Your task to perform on an android device: Search for the best vacuum on Walmart Image 0: 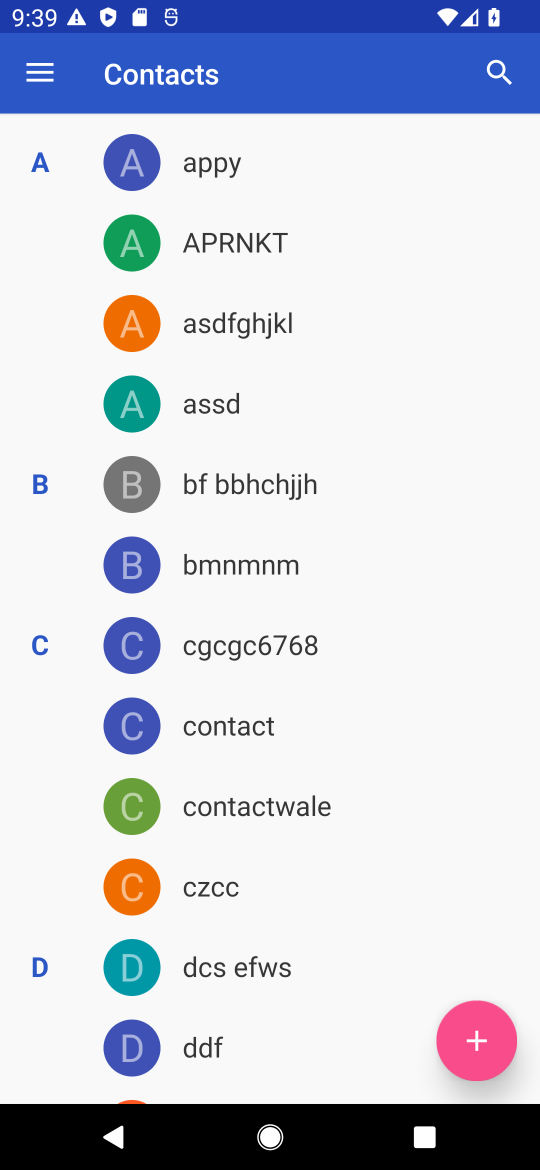
Step 0: press home button
Your task to perform on an android device: Search for the best vacuum on Walmart Image 1: 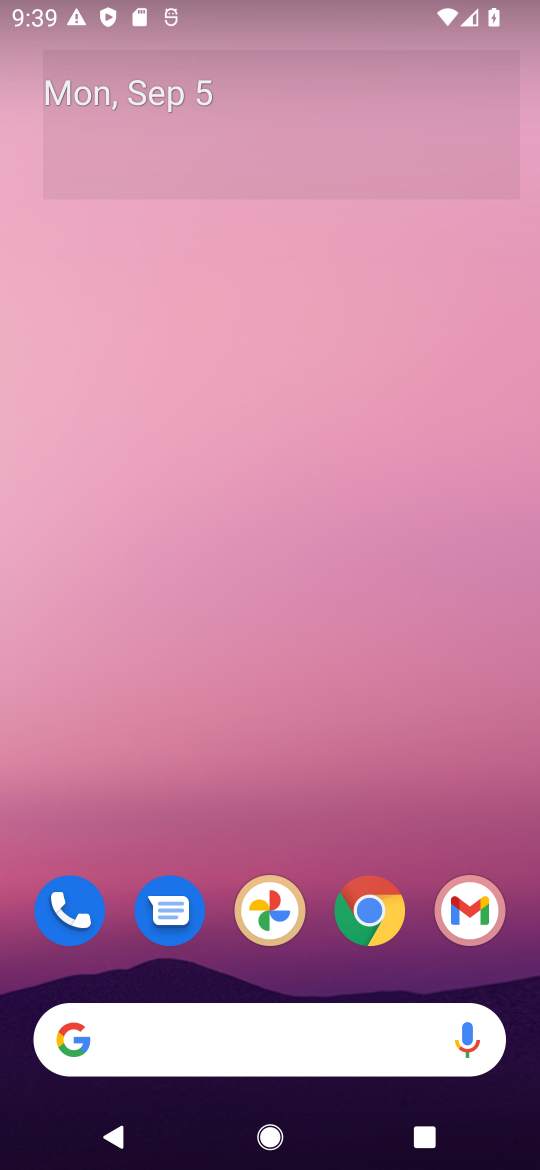
Step 1: click (354, 956)
Your task to perform on an android device: Search for the best vacuum on Walmart Image 2: 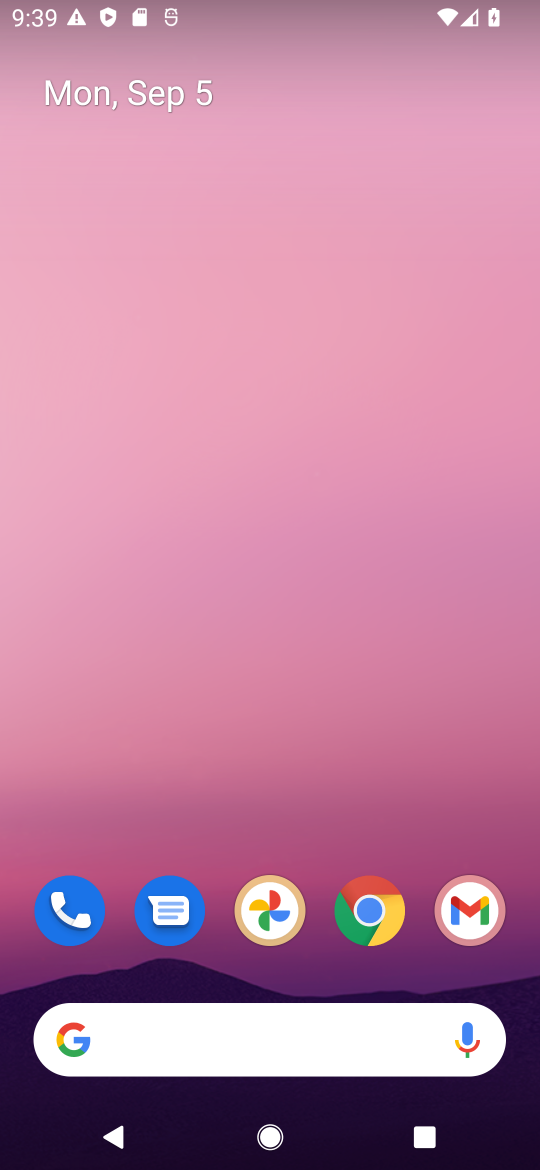
Step 2: click (377, 899)
Your task to perform on an android device: Search for the best vacuum on Walmart Image 3: 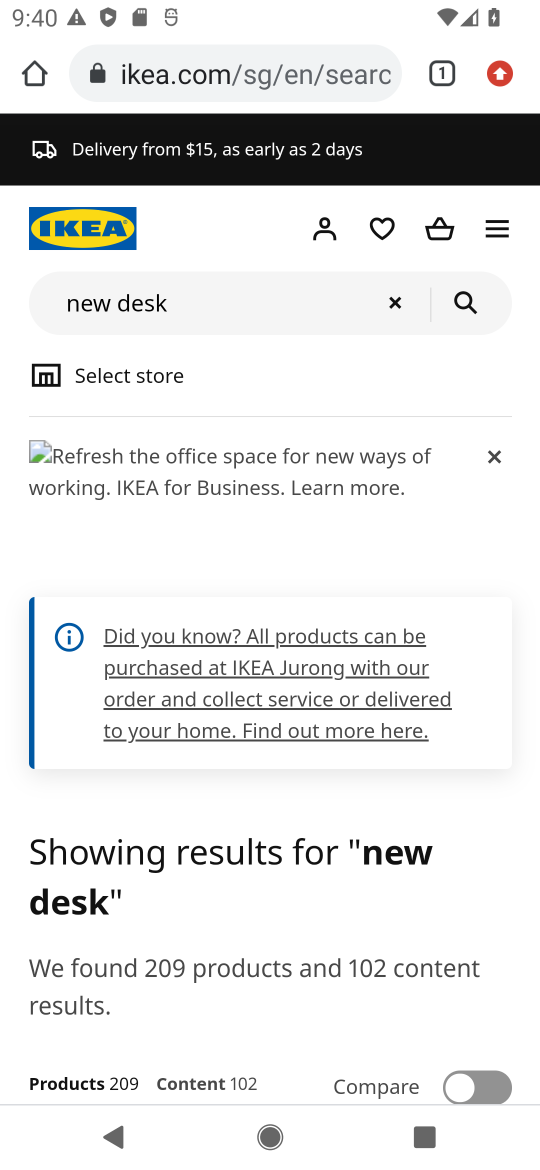
Step 3: click (285, 68)
Your task to perform on an android device: Search for the best vacuum on Walmart Image 4: 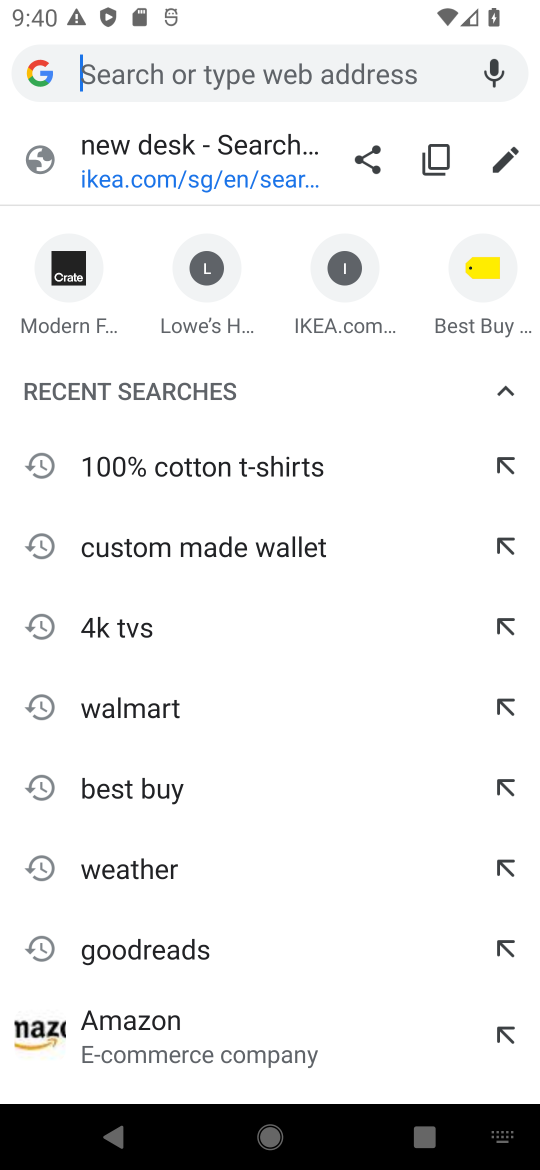
Step 4: type "walmart"
Your task to perform on an android device: Search for the best vacuum on Walmart Image 5: 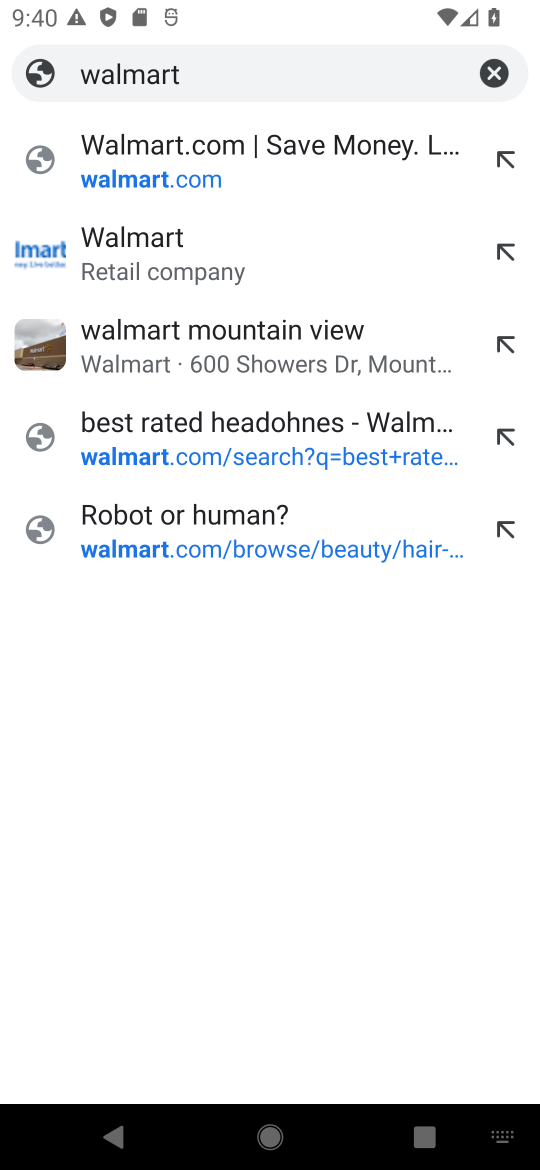
Step 5: click (195, 171)
Your task to perform on an android device: Search for the best vacuum on Walmart Image 6: 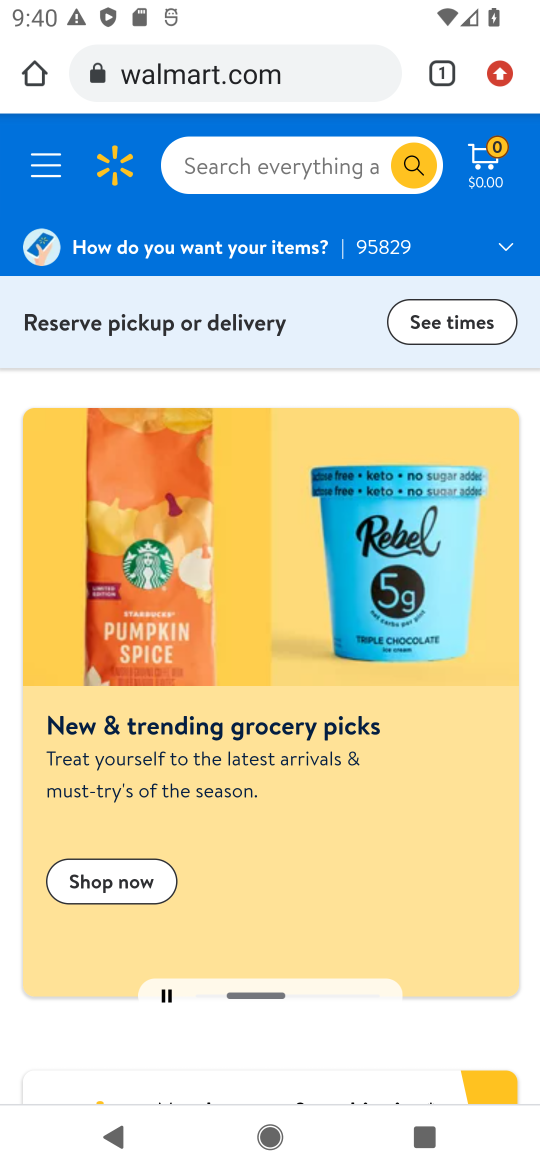
Step 6: click (337, 183)
Your task to perform on an android device: Search for the best vacuum on Walmart Image 7: 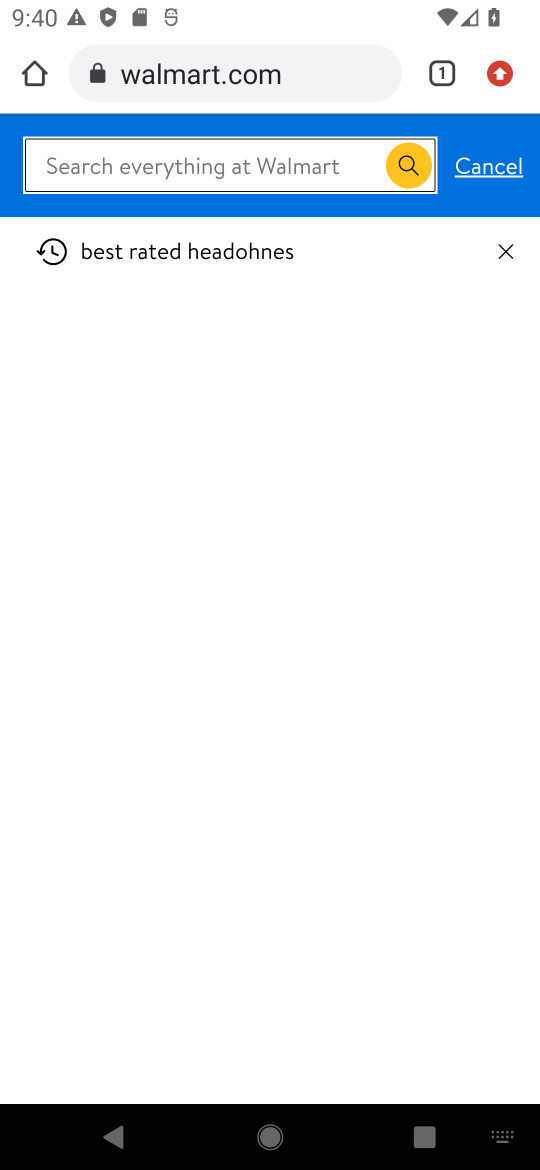
Step 7: type "best vacuum"
Your task to perform on an android device: Search for the best vacuum on Walmart Image 8: 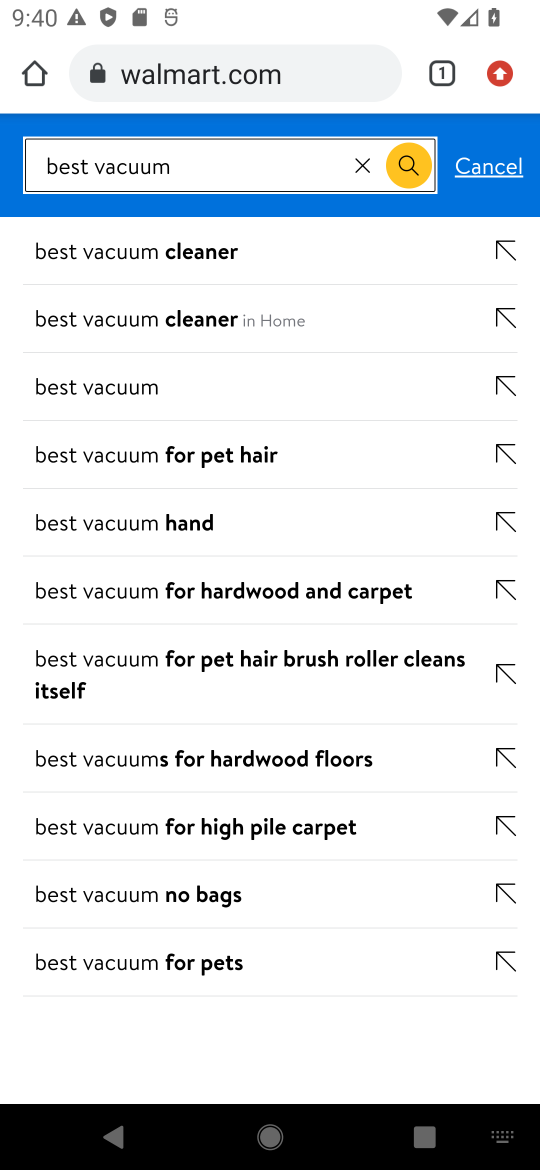
Step 8: press enter
Your task to perform on an android device: Search for the best vacuum on Walmart Image 9: 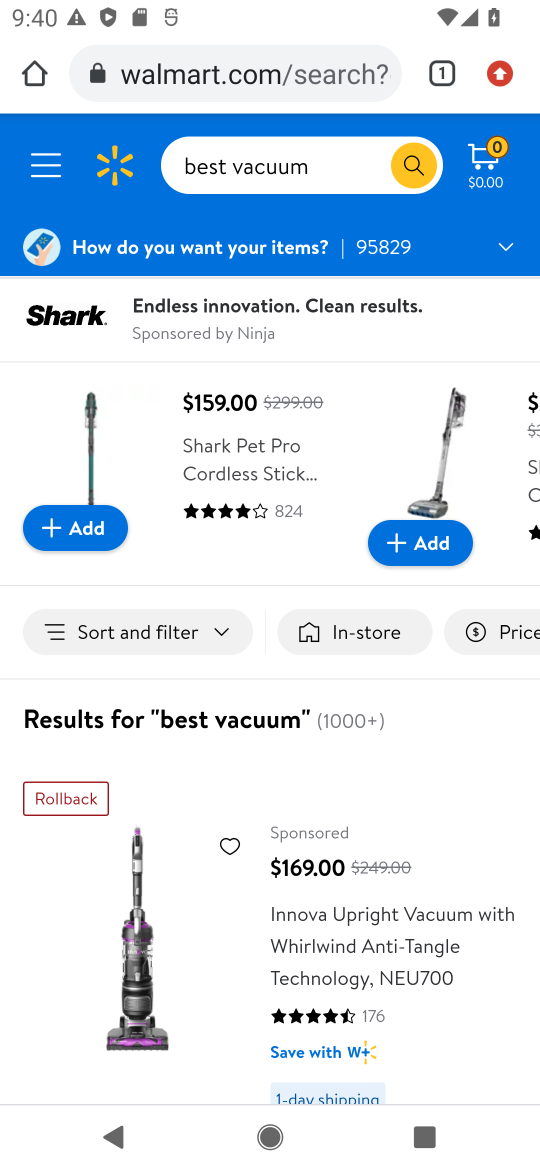
Step 9: task complete